Your task to perform on an android device: open app "eBay: The shopping marketplace" (install if not already installed) Image 0: 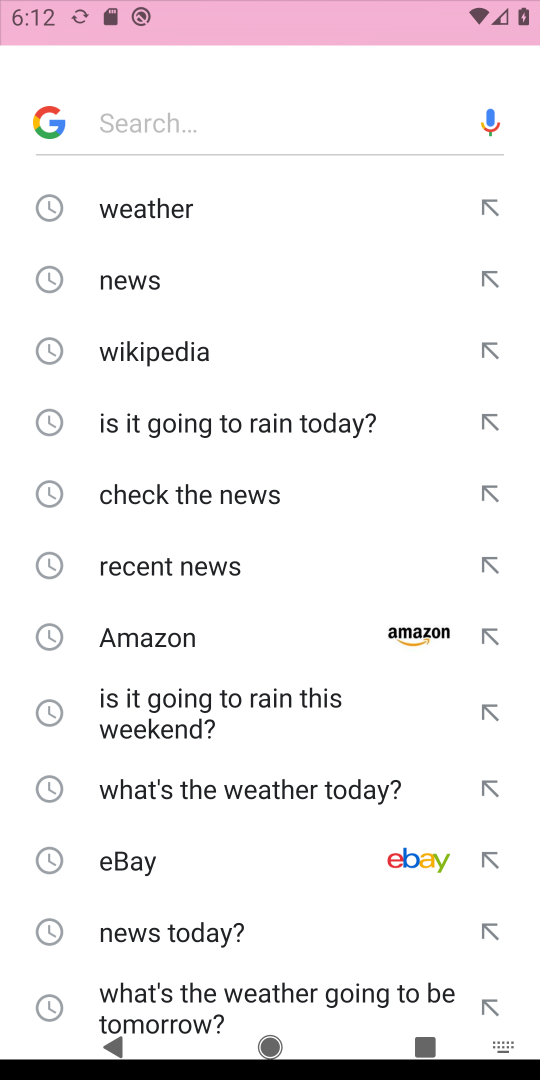
Step 0: press home button
Your task to perform on an android device: open app "eBay: The shopping marketplace" (install if not already installed) Image 1: 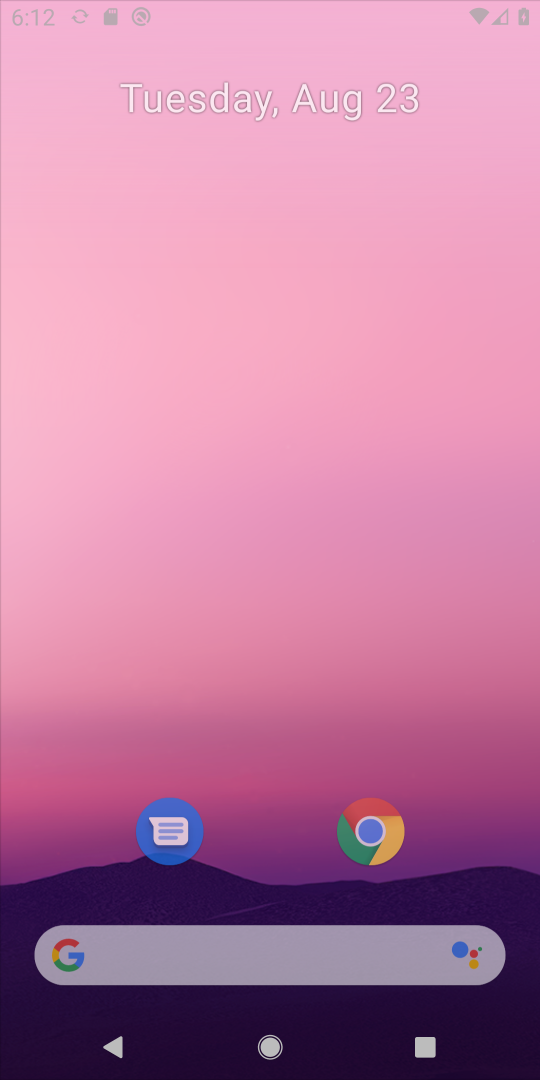
Step 1: press home button
Your task to perform on an android device: open app "eBay: The shopping marketplace" (install if not already installed) Image 2: 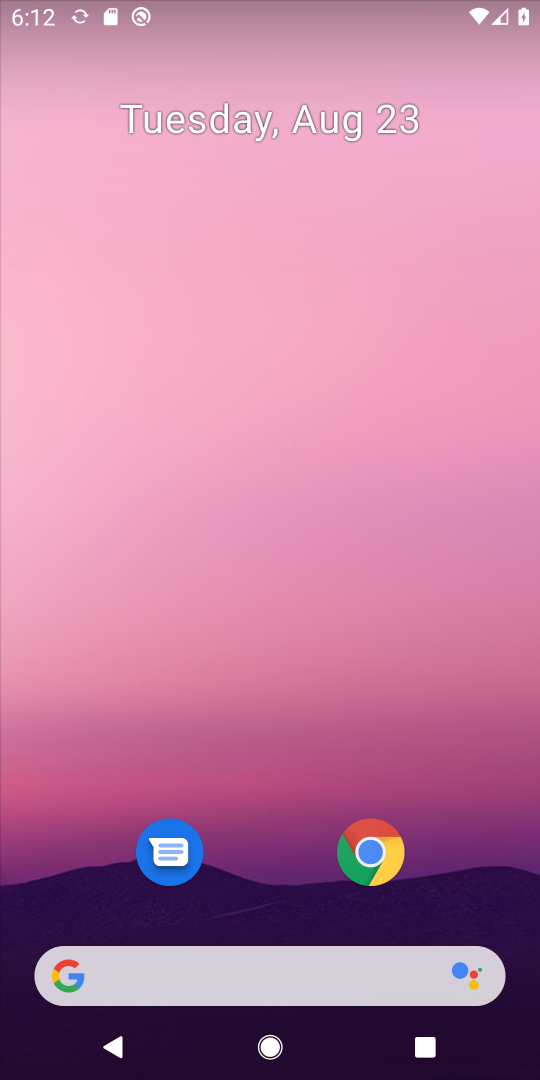
Step 2: drag from (281, 979) to (368, 43)
Your task to perform on an android device: open app "eBay: The shopping marketplace" (install if not already installed) Image 3: 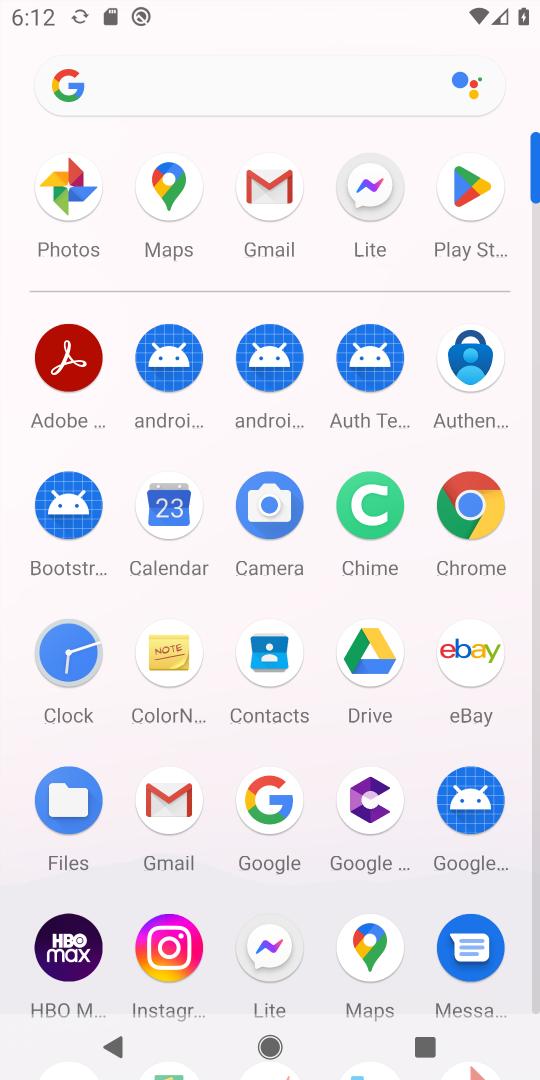
Step 3: click (479, 188)
Your task to perform on an android device: open app "eBay: The shopping marketplace" (install if not already installed) Image 4: 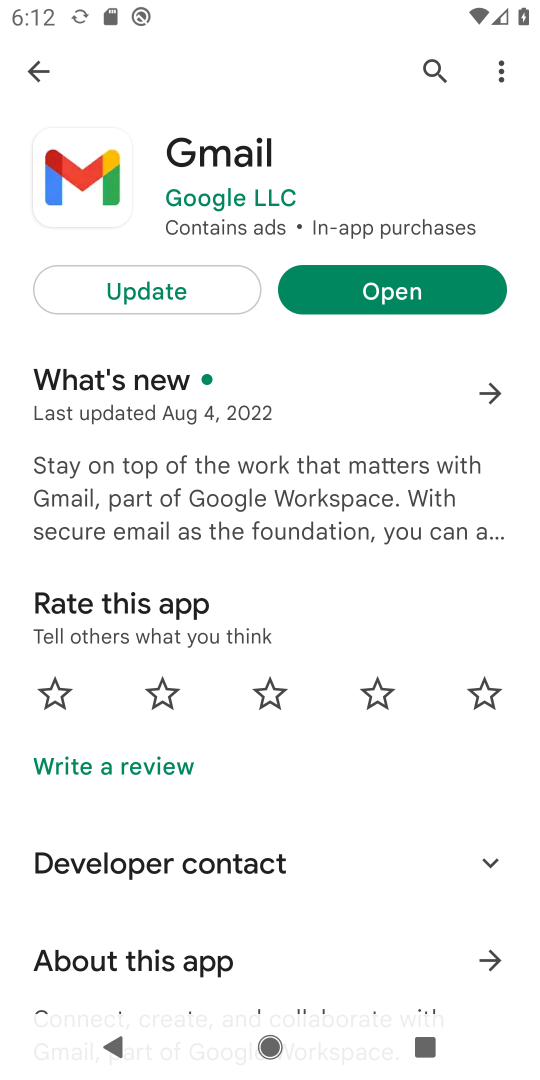
Step 4: press back button
Your task to perform on an android device: open app "eBay: The shopping marketplace" (install if not already installed) Image 5: 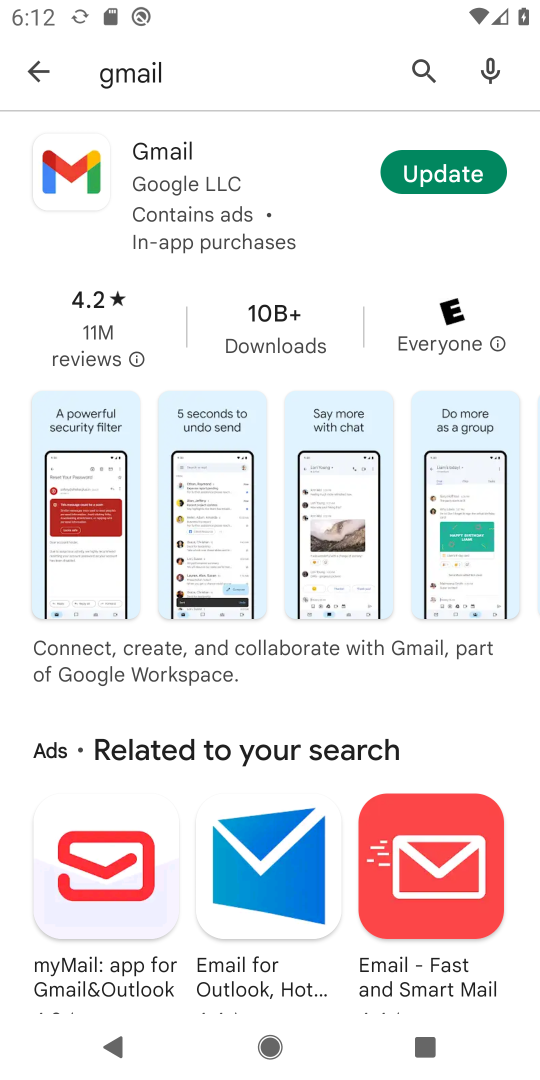
Step 5: press back button
Your task to perform on an android device: open app "eBay: The shopping marketplace" (install if not already installed) Image 6: 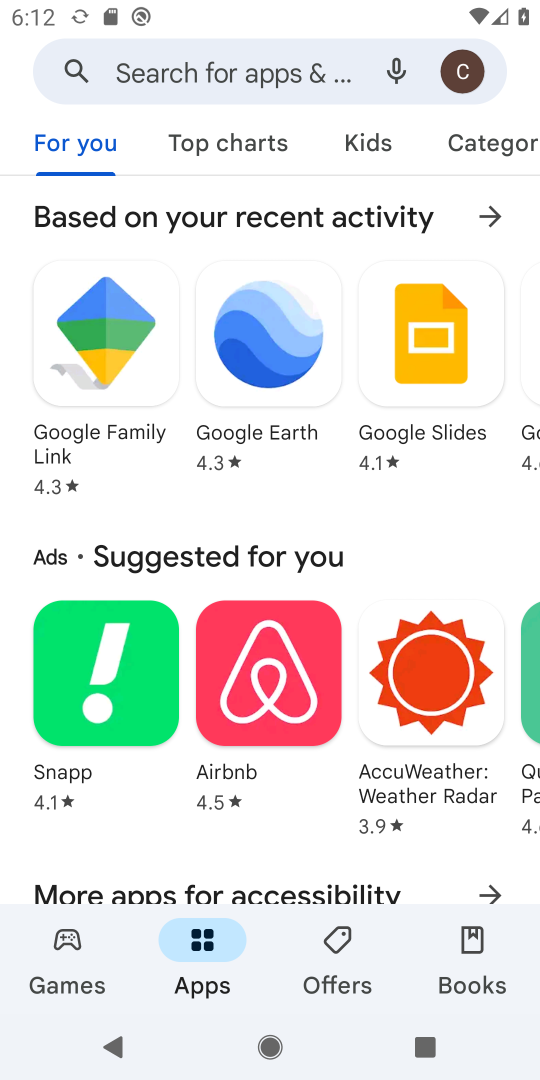
Step 6: click (268, 80)
Your task to perform on an android device: open app "eBay: The shopping marketplace" (install if not already installed) Image 7: 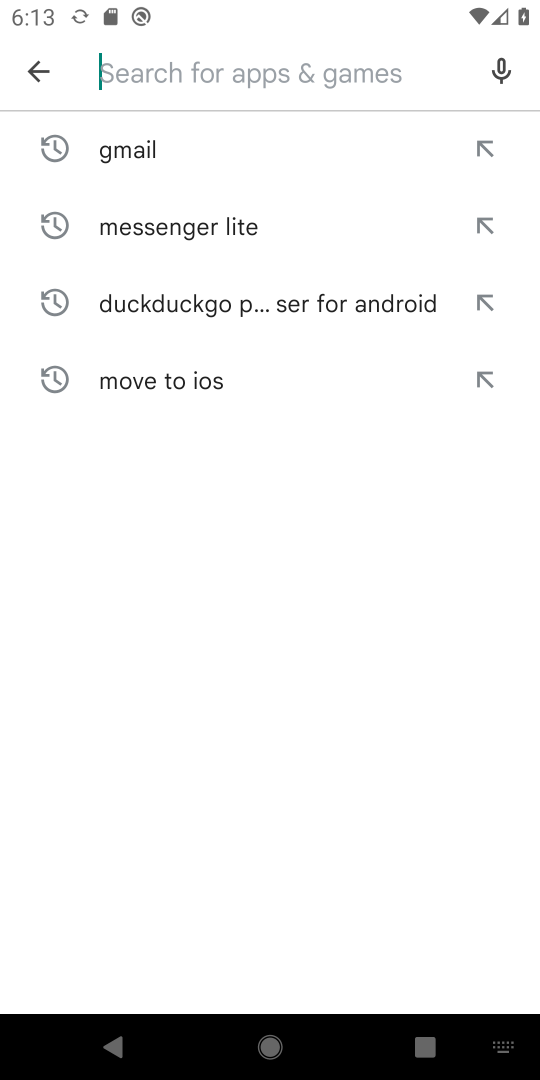
Step 7: click (297, 66)
Your task to perform on an android device: open app "eBay: The shopping marketplace" (install if not already installed) Image 8: 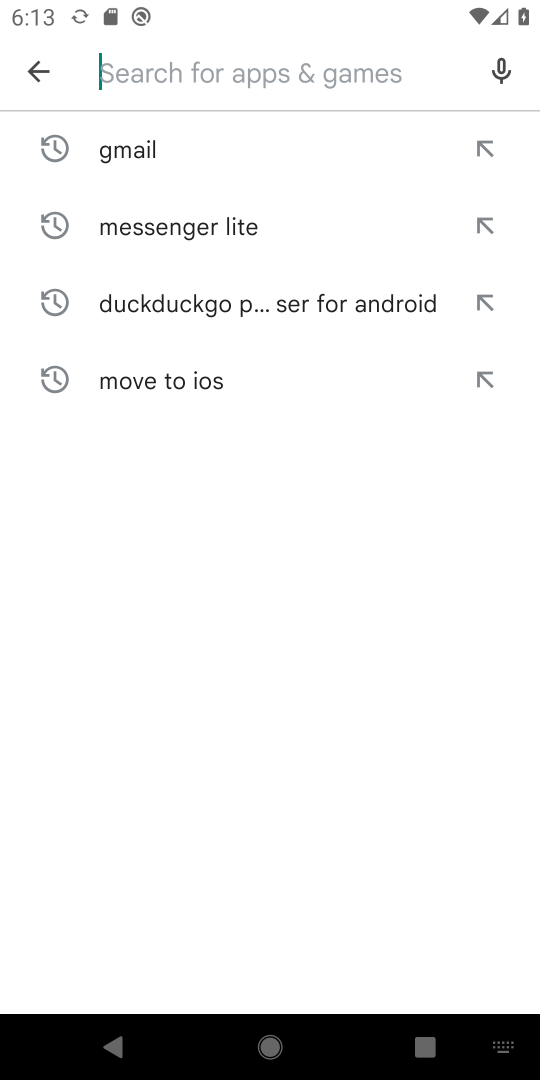
Step 8: type "eBay: The shopping marketplace"
Your task to perform on an android device: open app "eBay: The shopping marketplace" (install if not already installed) Image 9: 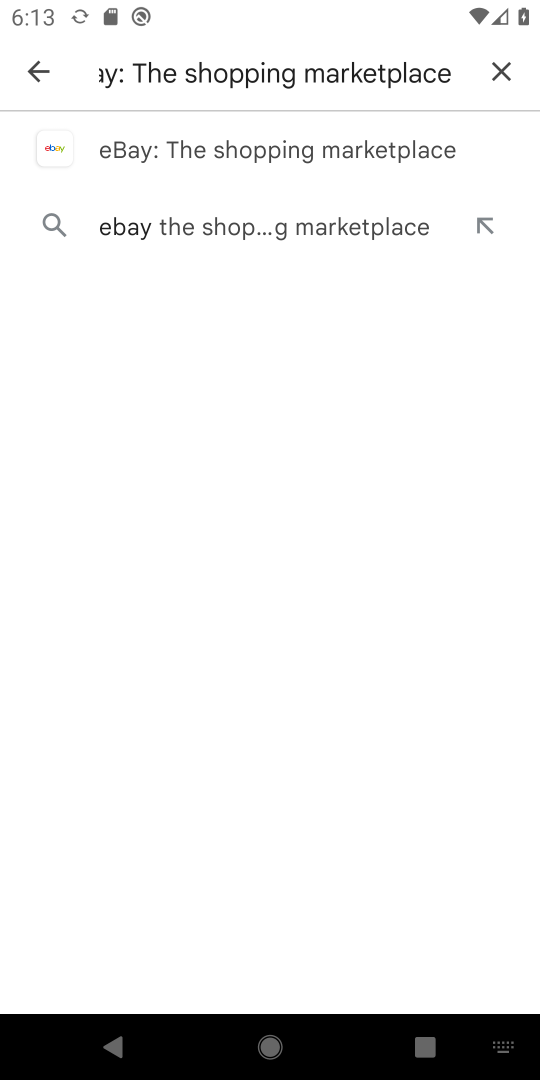
Step 9: click (372, 157)
Your task to perform on an android device: open app "eBay: The shopping marketplace" (install if not already installed) Image 10: 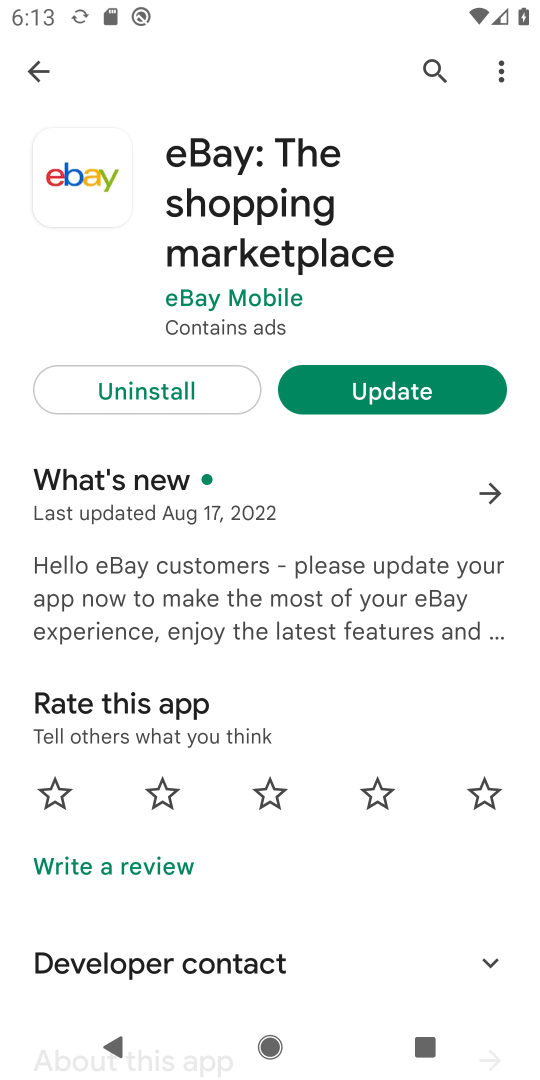
Step 10: click (358, 383)
Your task to perform on an android device: open app "eBay: The shopping marketplace" (install if not already installed) Image 11: 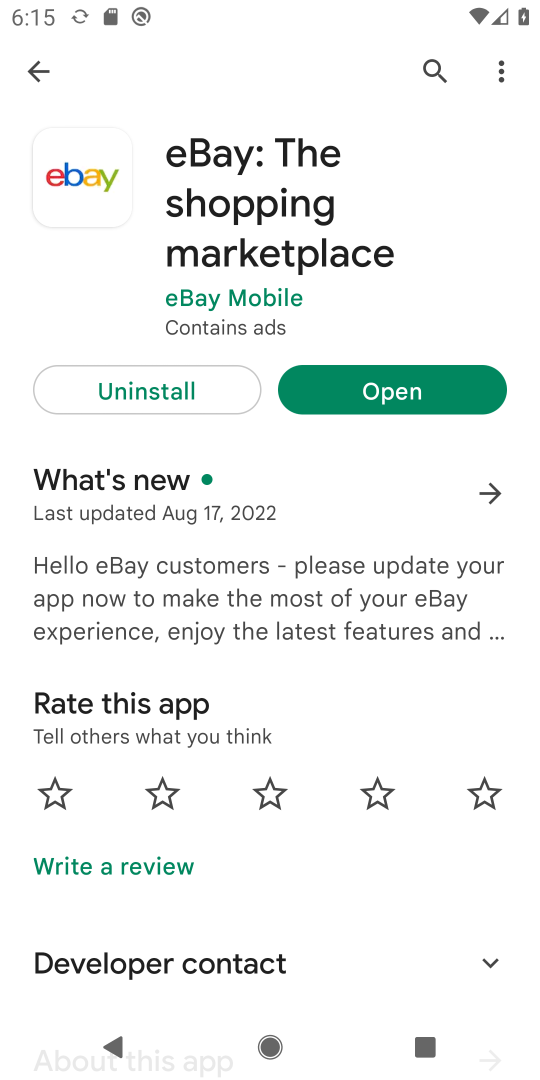
Step 11: click (349, 392)
Your task to perform on an android device: open app "eBay: The shopping marketplace" (install if not already installed) Image 12: 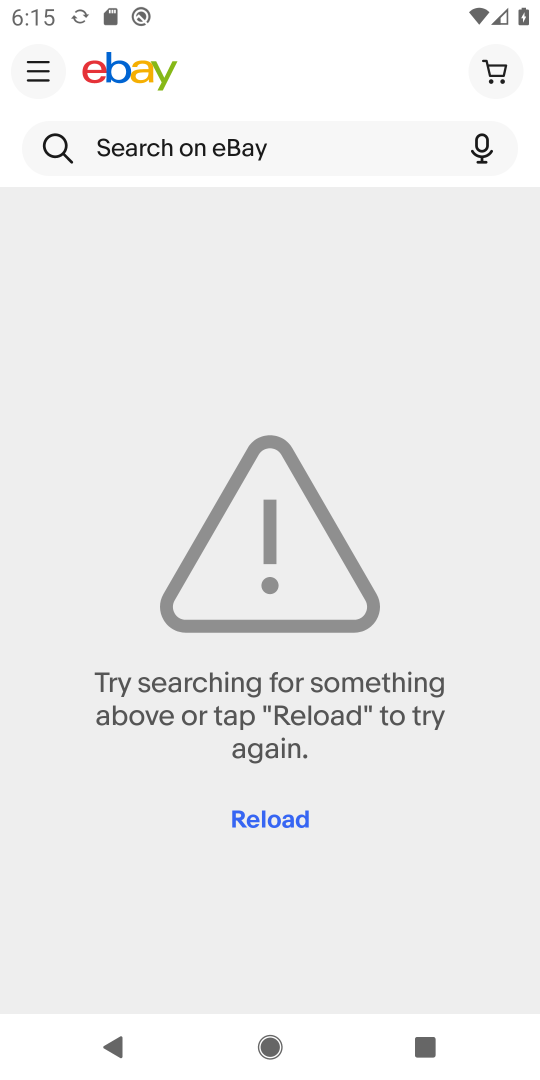
Step 12: task complete